Your task to perform on an android device: toggle data saver in the chrome app Image 0: 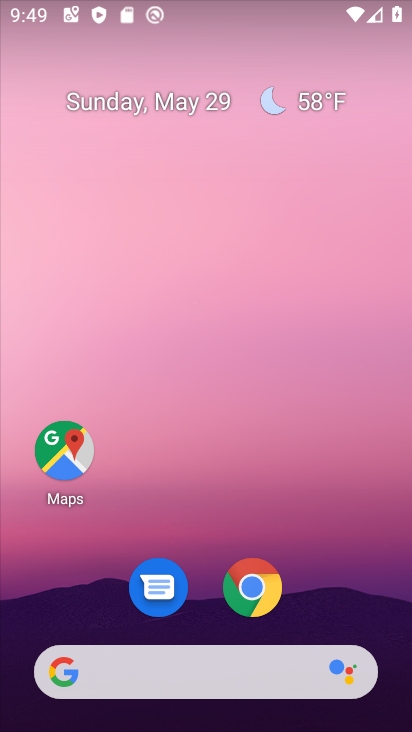
Step 0: click (262, 592)
Your task to perform on an android device: toggle data saver in the chrome app Image 1: 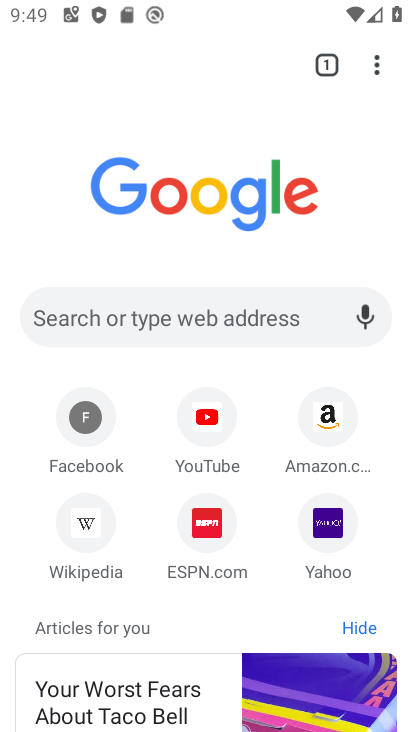
Step 1: click (376, 53)
Your task to perform on an android device: toggle data saver in the chrome app Image 2: 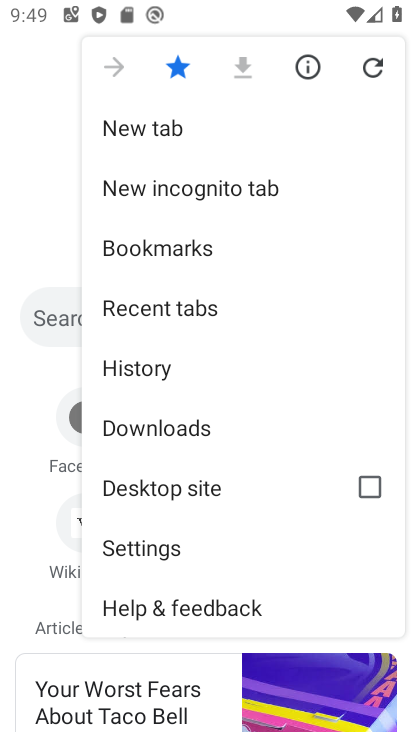
Step 2: click (203, 546)
Your task to perform on an android device: toggle data saver in the chrome app Image 3: 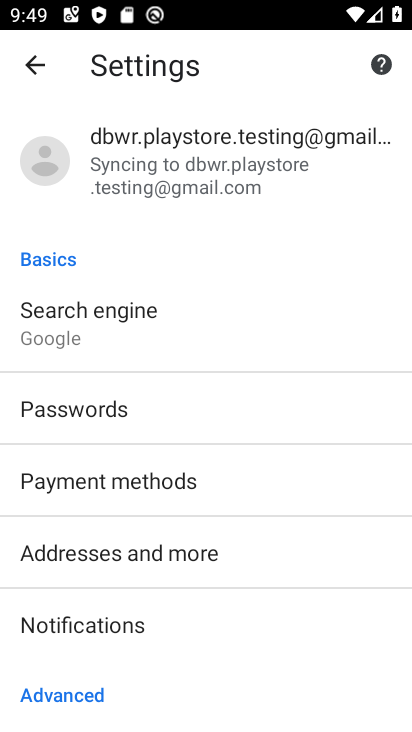
Step 3: drag from (206, 676) to (199, 24)
Your task to perform on an android device: toggle data saver in the chrome app Image 4: 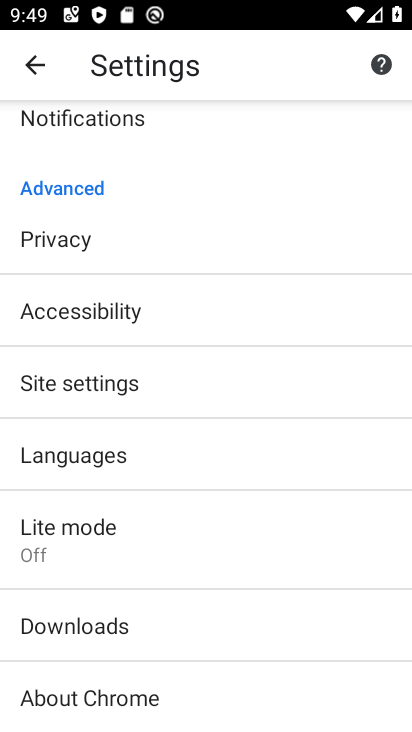
Step 4: click (142, 545)
Your task to perform on an android device: toggle data saver in the chrome app Image 5: 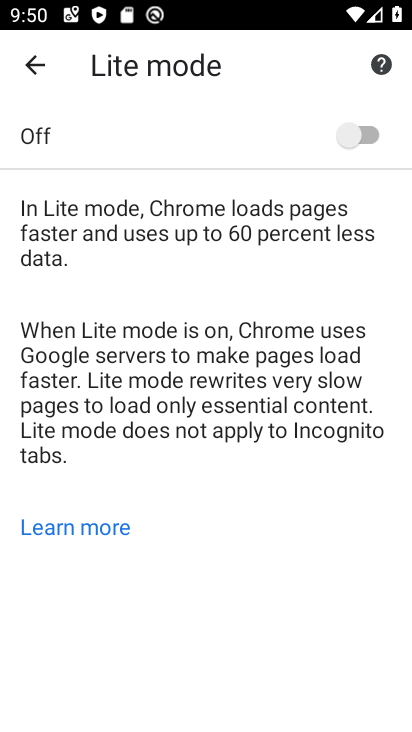
Step 5: click (366, 133)
Your task to perform on an android device: toggle data saver in the chrome app Image 6: 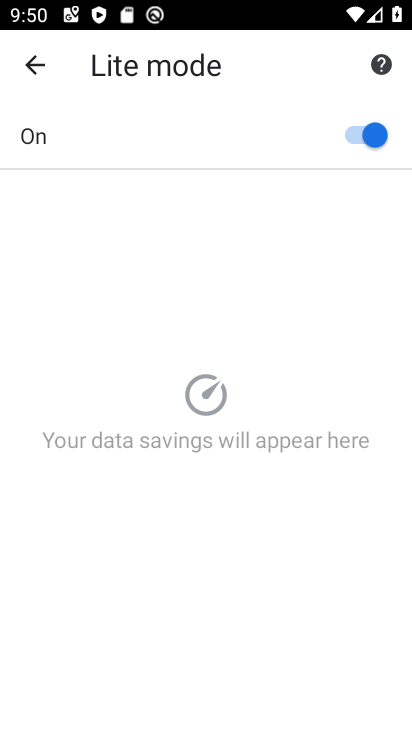
Step 6: task complete